Your task to perform on an android device: Open Chrome and go to settings Image 0: 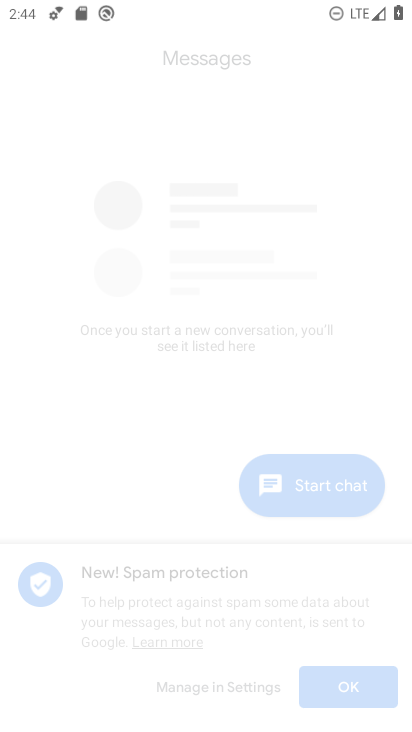
Step 0: press home button
Your task to perform on an android device: Open Chrome and go to settings Image 1: 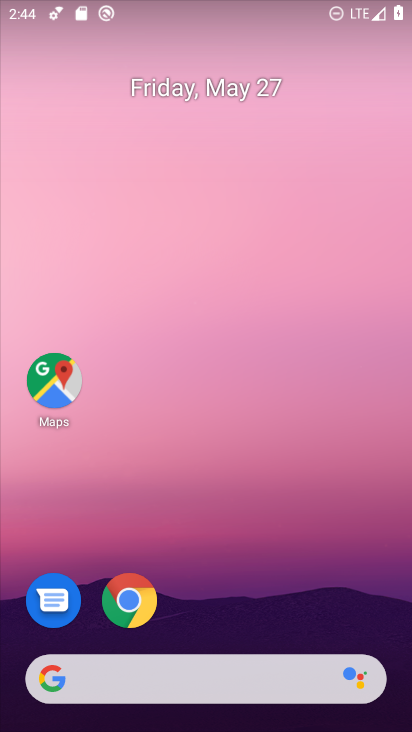
Step 1: click (132, 605)
Your task to perform on an android device: Open Chrome and go to settings Image 2: 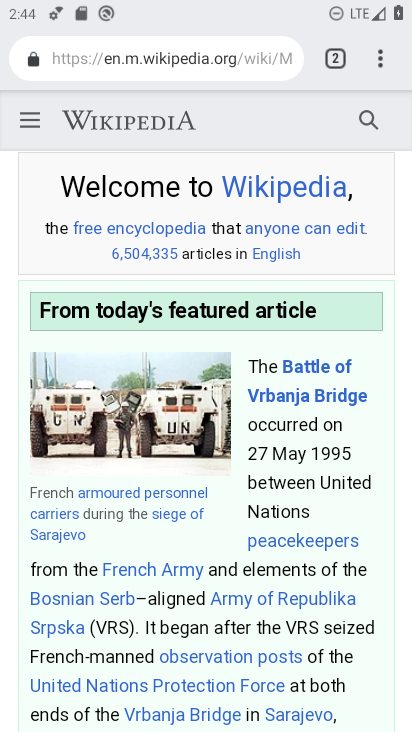
Step 2: click (379, 63)
Your task to perform on an android device: Open Chrome and go to settings Image 3: 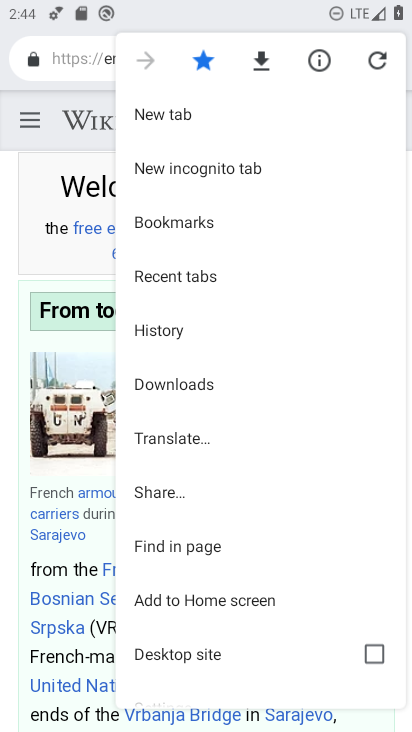
Step 3: drag from (218, 670) to (227, 314)
Your task to perform on an android device: Open Chrome and go to settings Image 4: 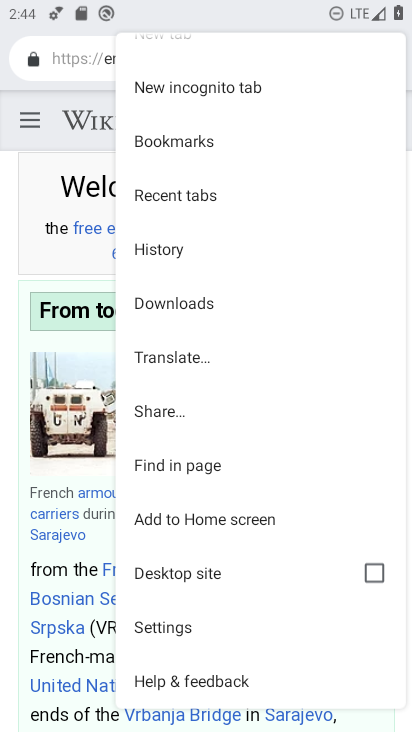
Step 4: click (165, 627)
Your task to perform on an android device: Open Chrome and go to settings Image 5: 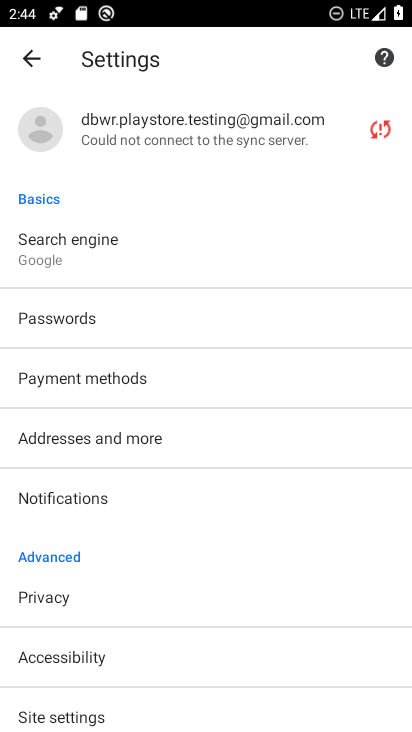
Step 5: task complete